Your task to perform on an android device: Clear the cart on amazon. Add usb-a to the cart on amazon, then select checkout. Image 0: 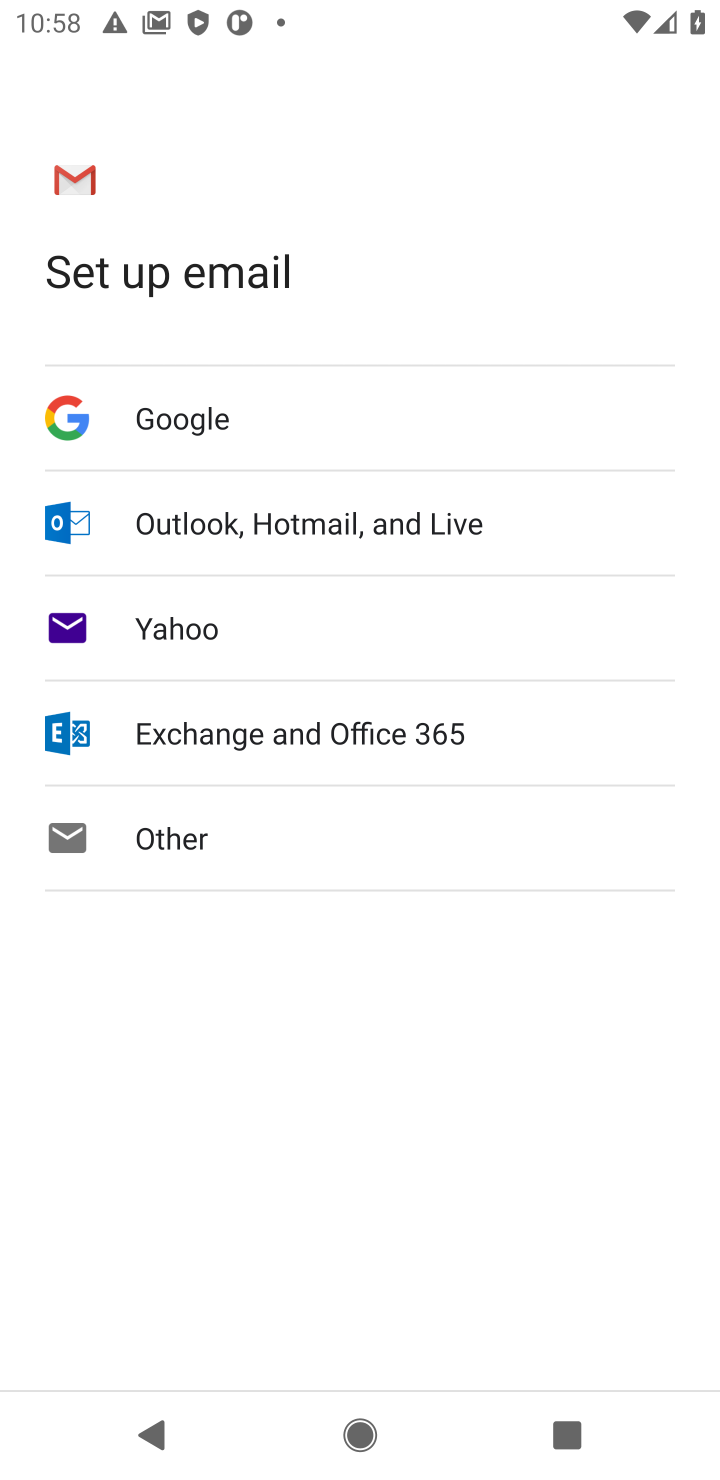
Step 0: press home button
Your task to perform on an android device: Clear the cart on amazon. Add usb-a to the cart on amazon, then select checkout. Image 1: 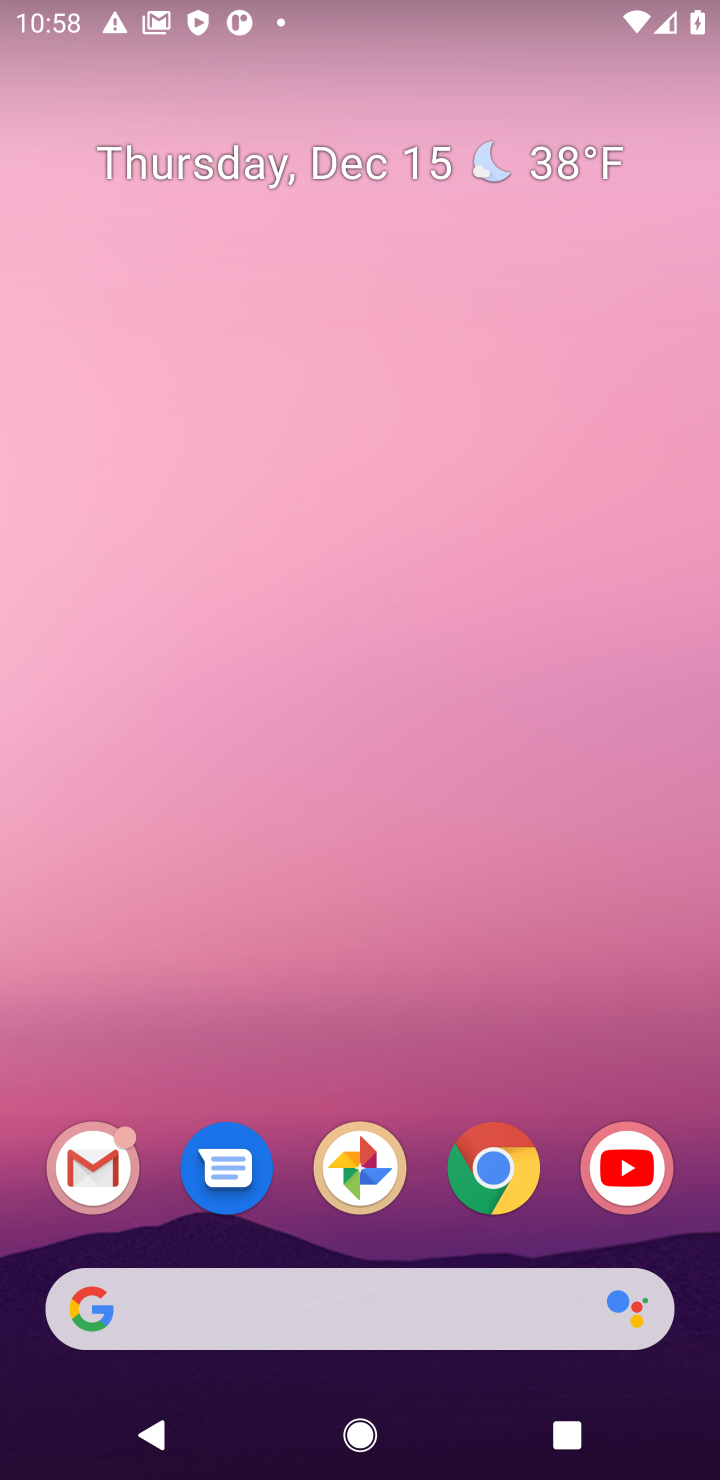
Step 1: click (500, 1171)
Your task to perform on an android device: Clear the cart on amazon. Add usb-a to the cart on amazon, then select checkout. Image 2: 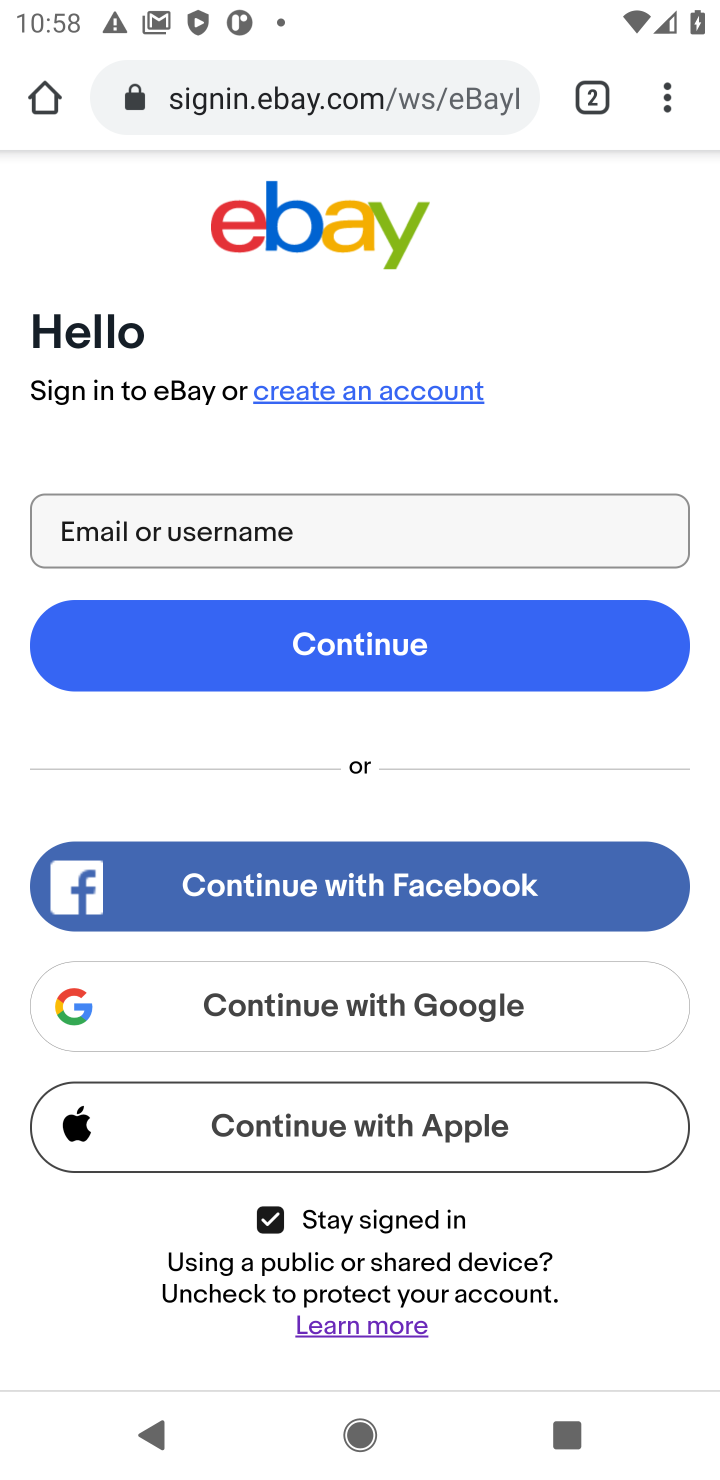
Step 2: click (394, 101)
Your task to perform on an android device: Clear the cart on amazon. Add usb-a to the cart on amazon, then select checkout. Image 3: 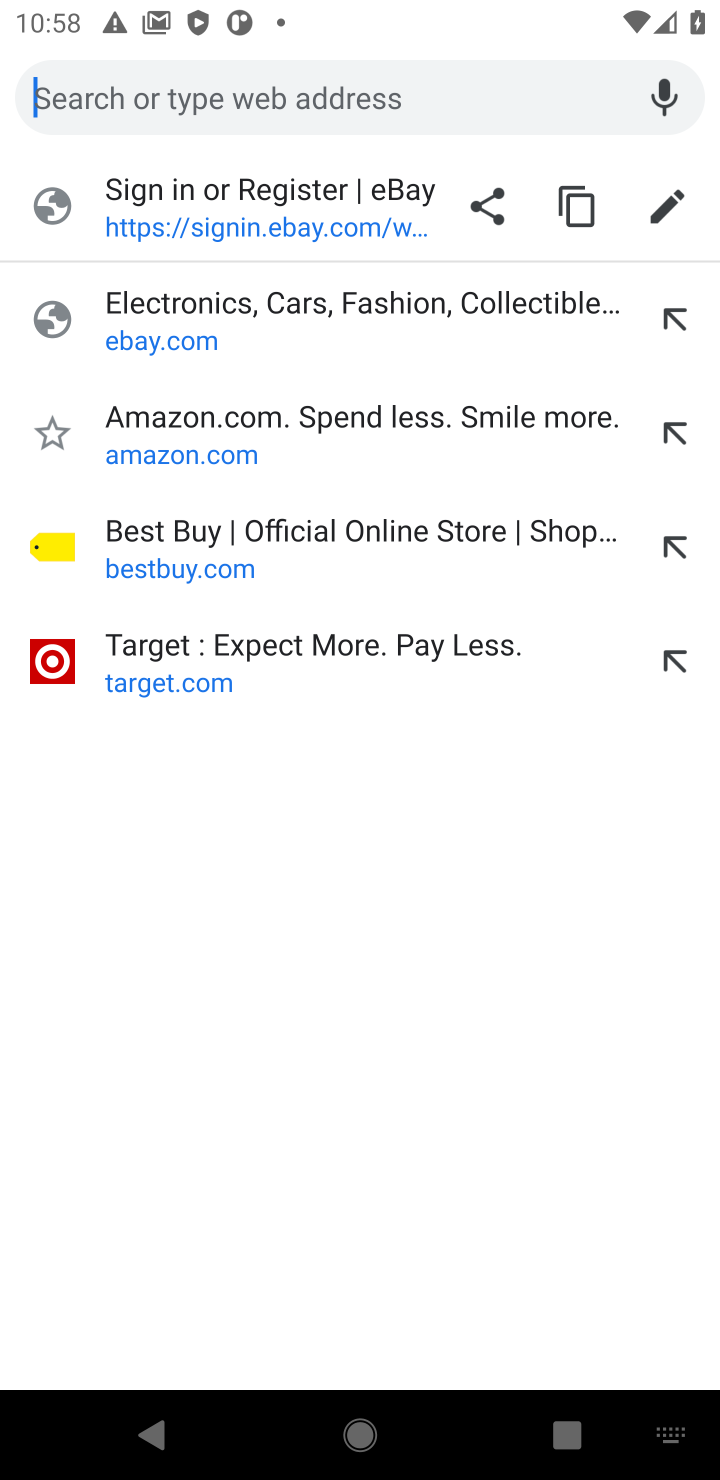
Step 3: click (277, 423)
Your task to perform on an android device: Clear the cart on amazon. Add usb-a to the cart on amazon, then select checkout. Image 4: 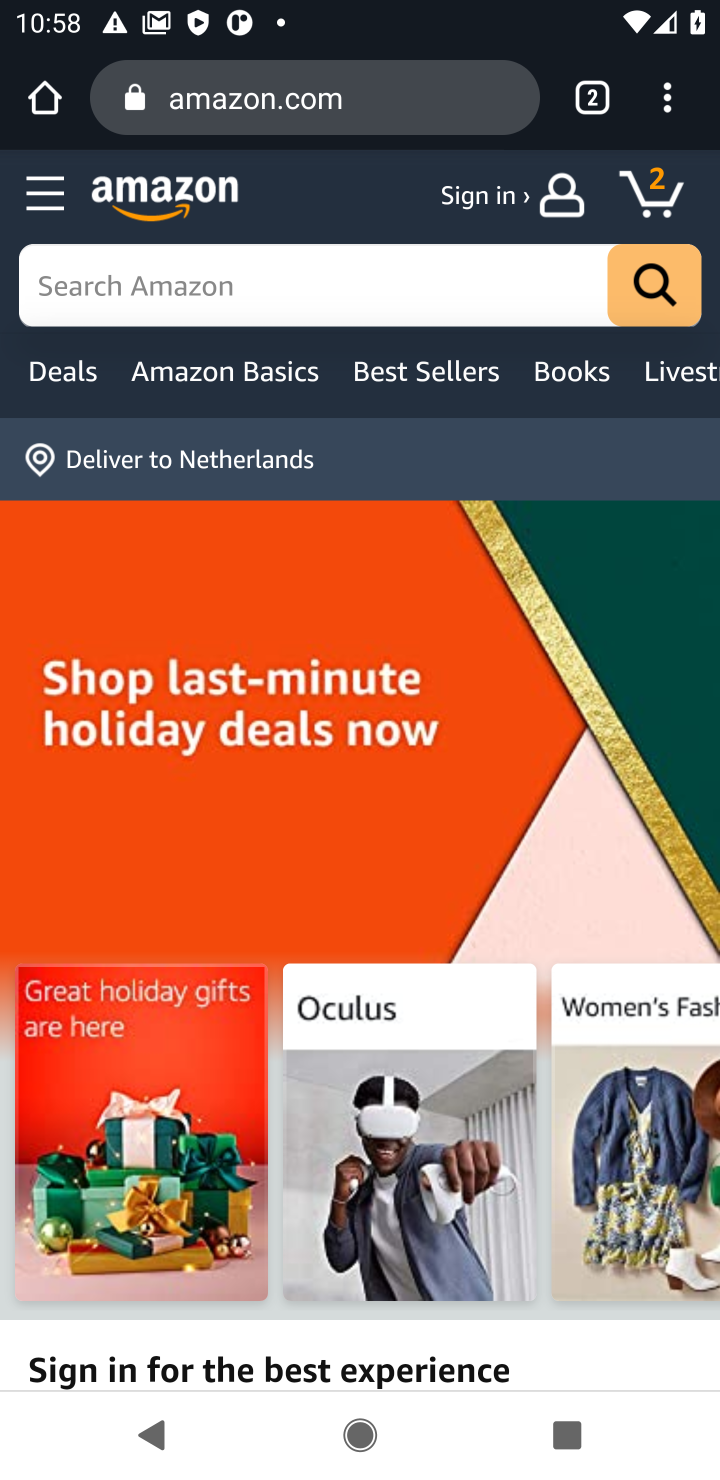
Step 4: click (645, 200)
Your task to perform on an android device: Clear the cart on amazon. Add usb-a to the cart on amazon, then select checkout. Image 5: 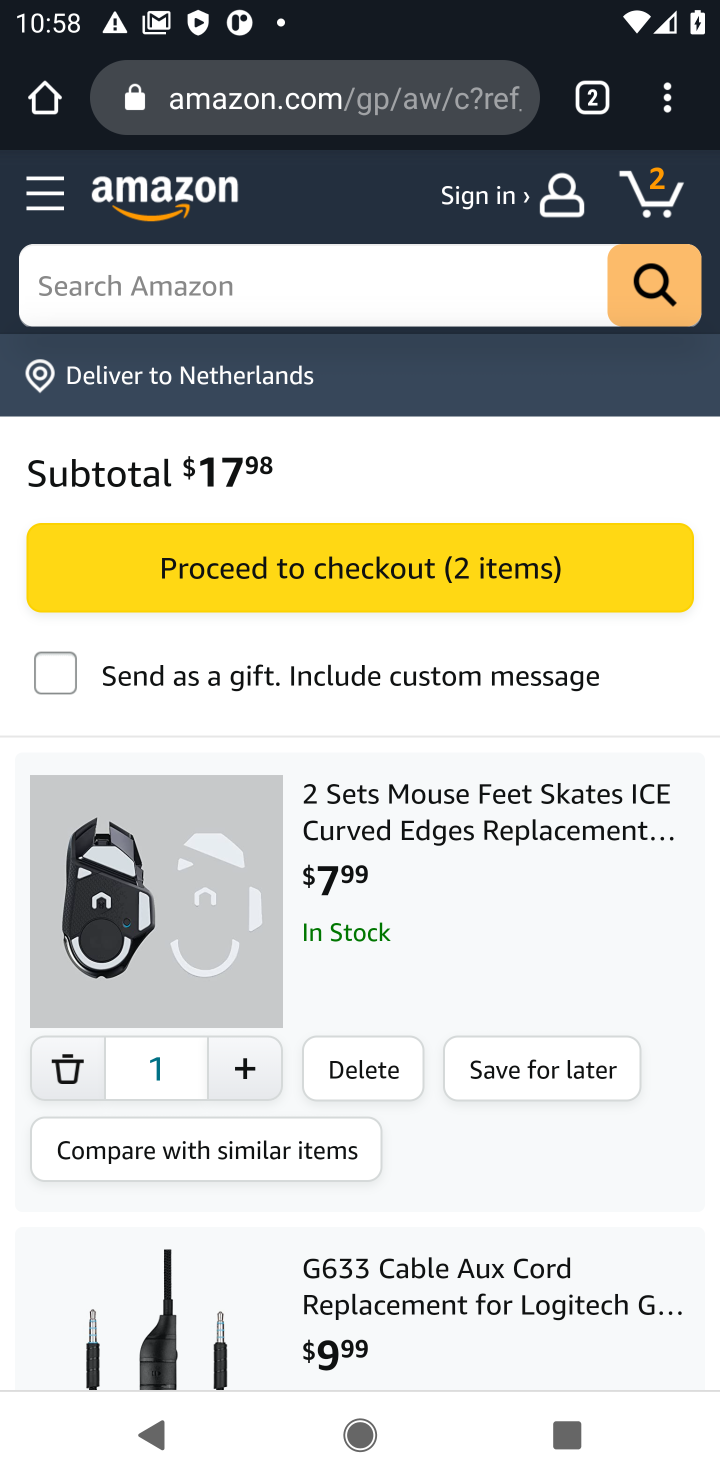
Step 5: click (60, 1067)
Your task to perform on an android device: Clear the cart on amazon. Add usb-a to the cart on amazon, then select checkout. Image 6: 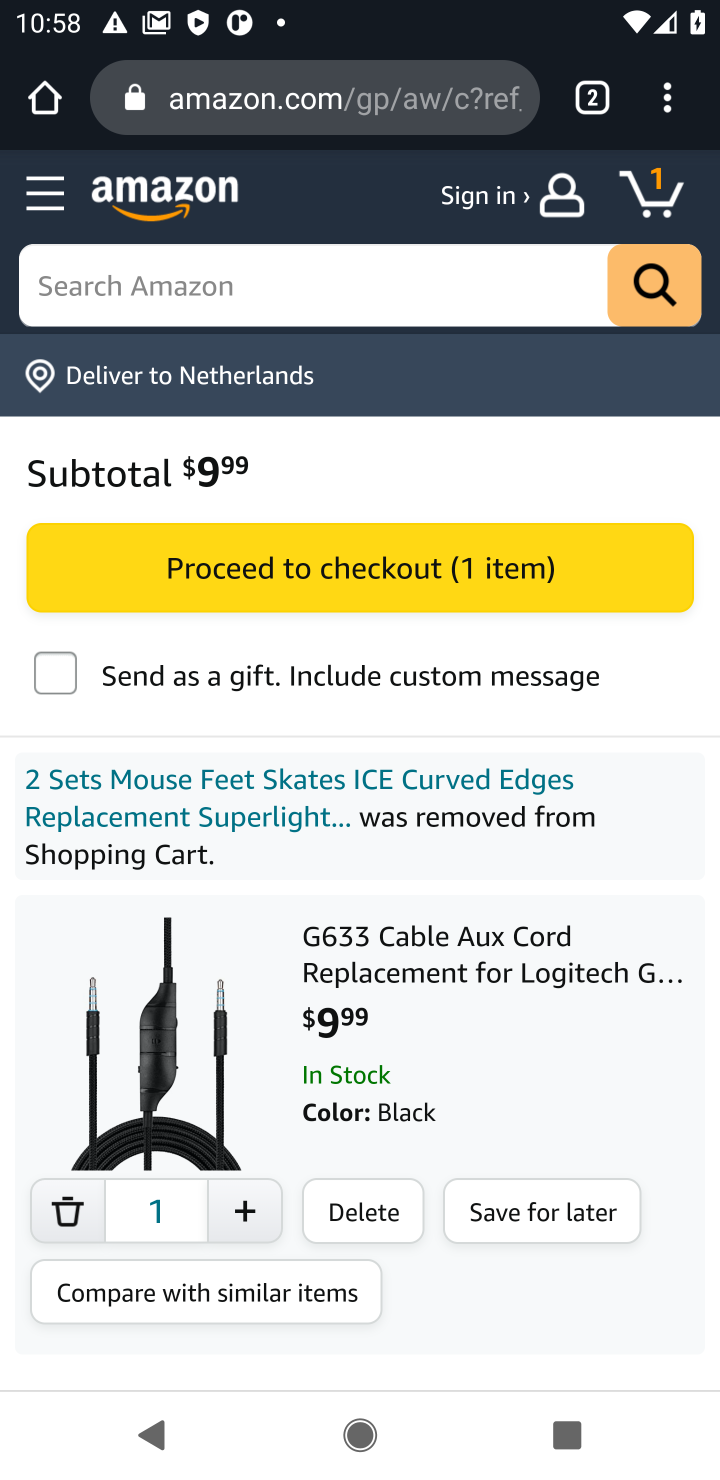
Step 6: click (56, 1209)
Your task to perform on an android device: Clear the cart on amazon. Add usb-a to the cart on amazon, then select checkout. Image 7: 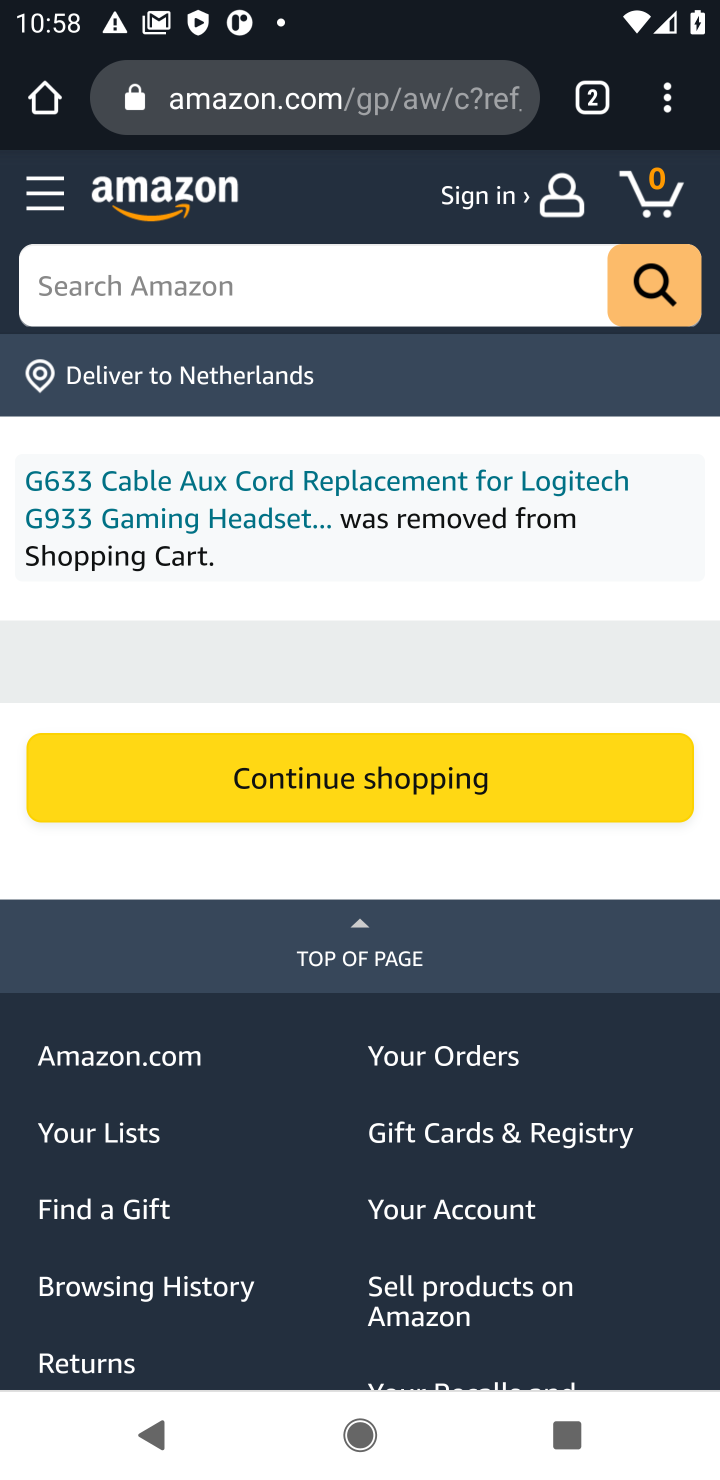
Step 7: click (459, 279)
Your task to perform on an android device: Clear the cart on amazon. Add usb-a to the cart on amazon, then select checkout. Image 8: 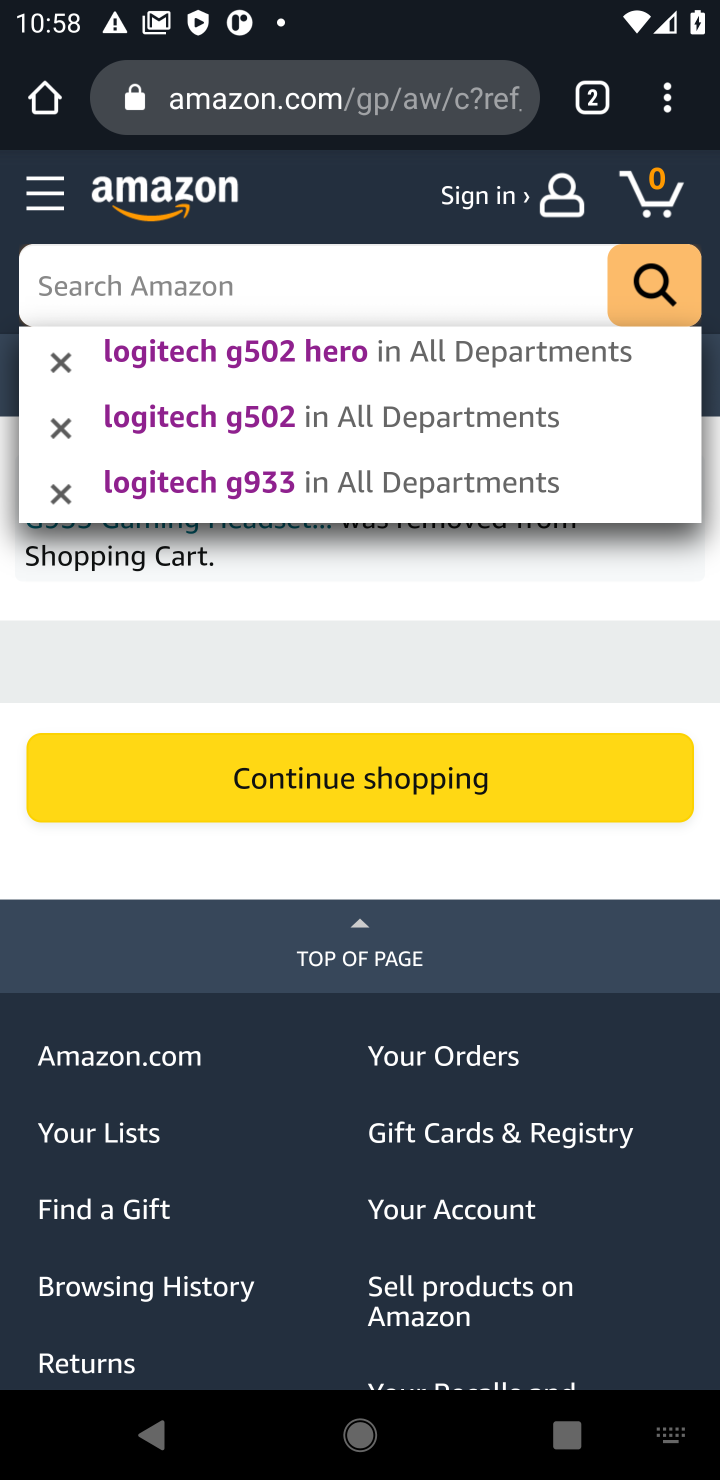
Step 8: type "usb-a"
Your task to perform on an android device: Clear the cart on amazon. Add usb-a to the cart on amazon, then select checkout. Image 9: 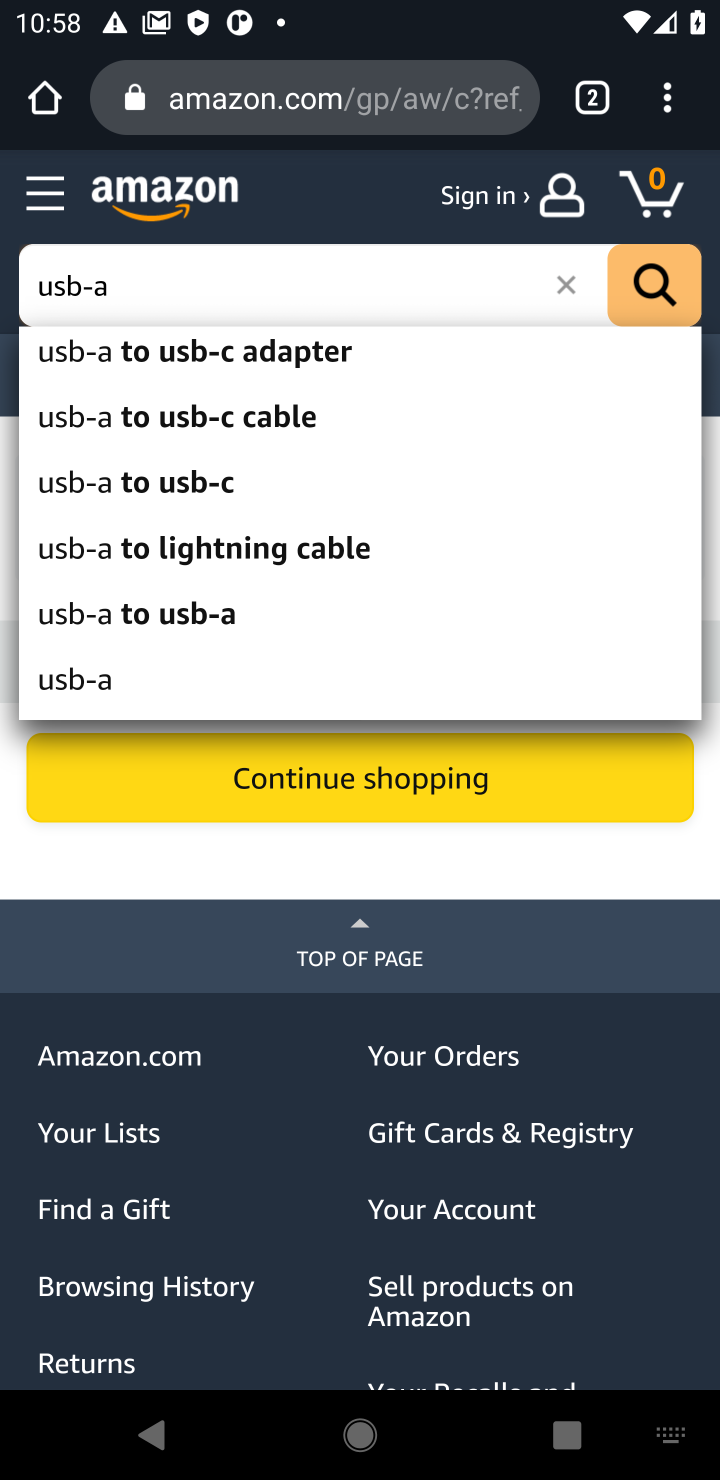
Step 9: click (161, 361)
Your task to perform on an android device: Clear the cart on amazon. Add usb-a to the cart on amazon, then select checkout. Image 10: 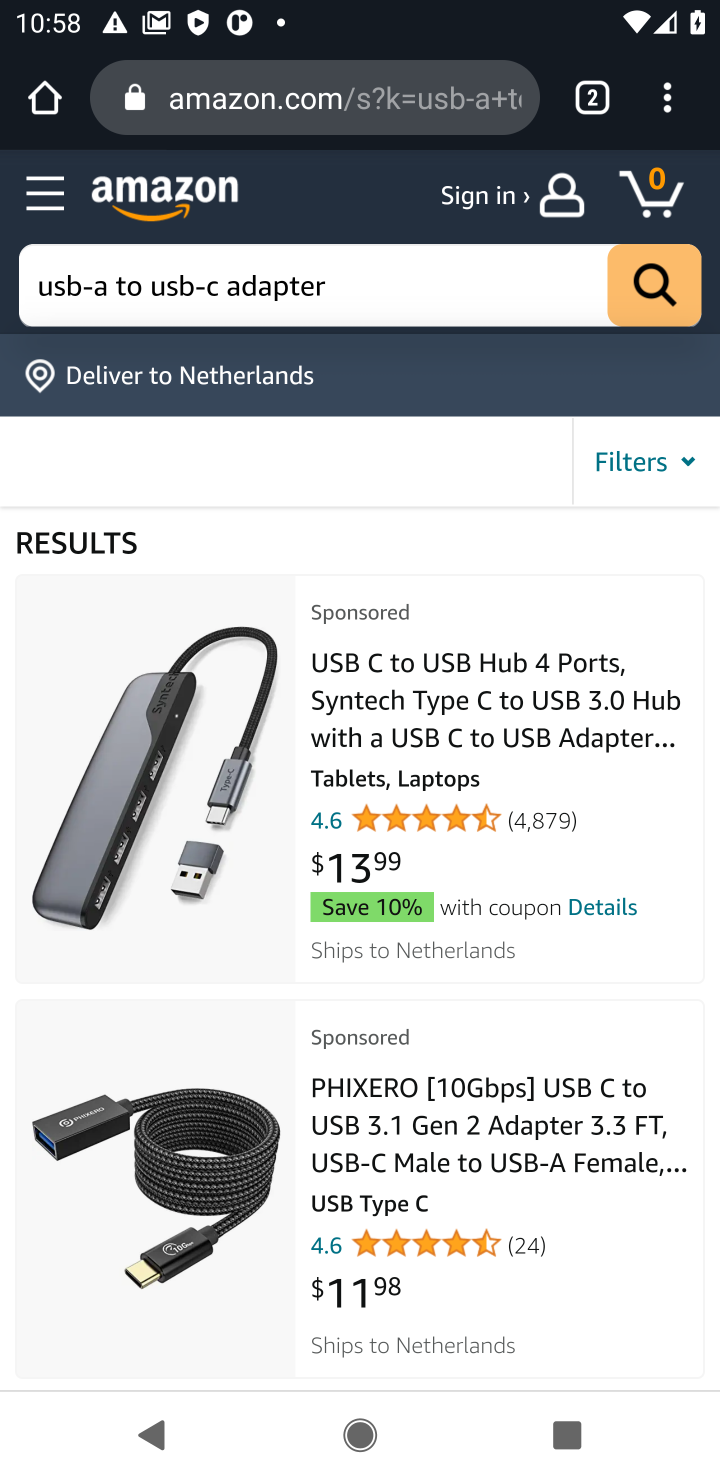
Step 10: click (515, 724)
Your task to perform on an android device: Clear the cart on amazon. Add usb-a to the cart on amazon, then select checkout. Image 11: 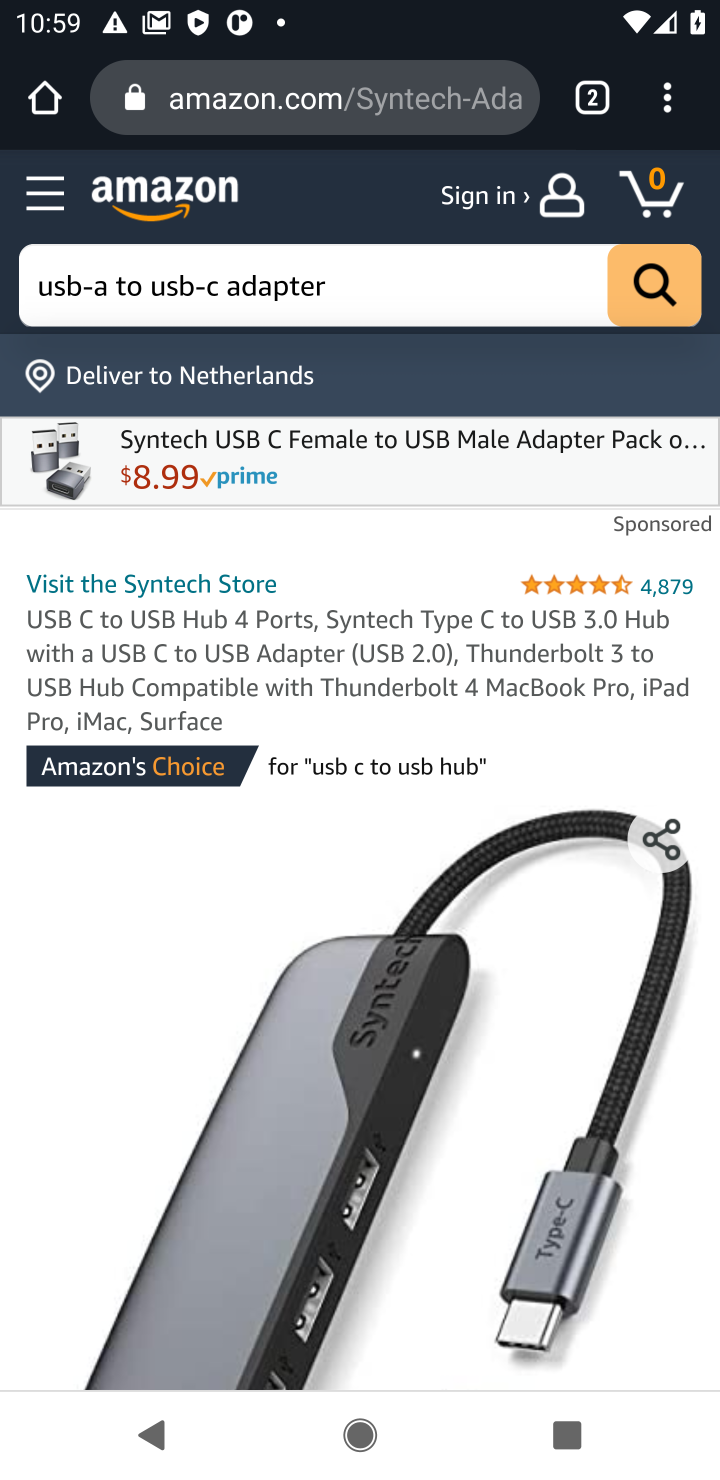
Step 11: drag from (396, 1164) to (471, 287)
Your task to perform on an android device: Clear the cart on amazon. Add usb-a to the cart on amazon, then select checkout. Image 12: 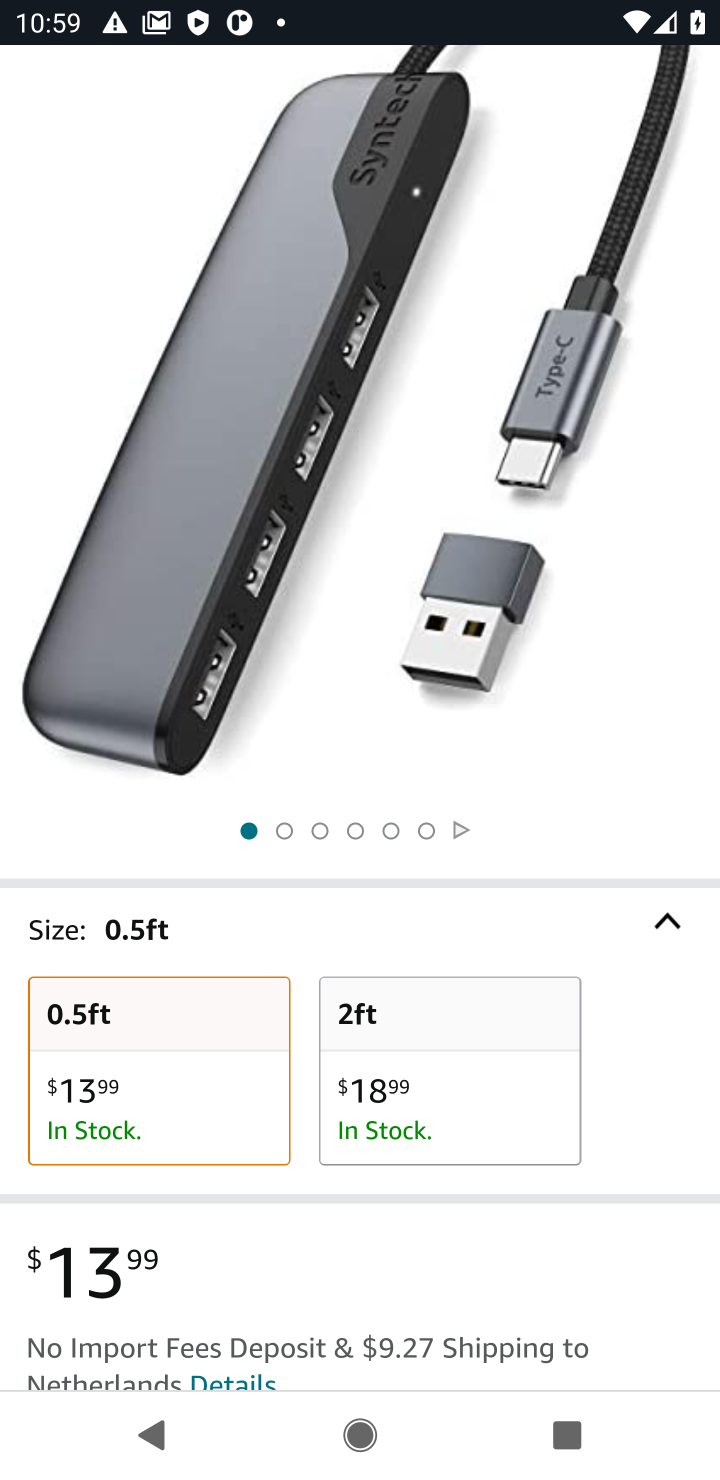
Step 12: drag from (569, 1251) to (597, 287)
Your task to perform on an android device: Clear the cart on amazon. Add usb-a to the cart on amazon, then select checkout. Image 13: 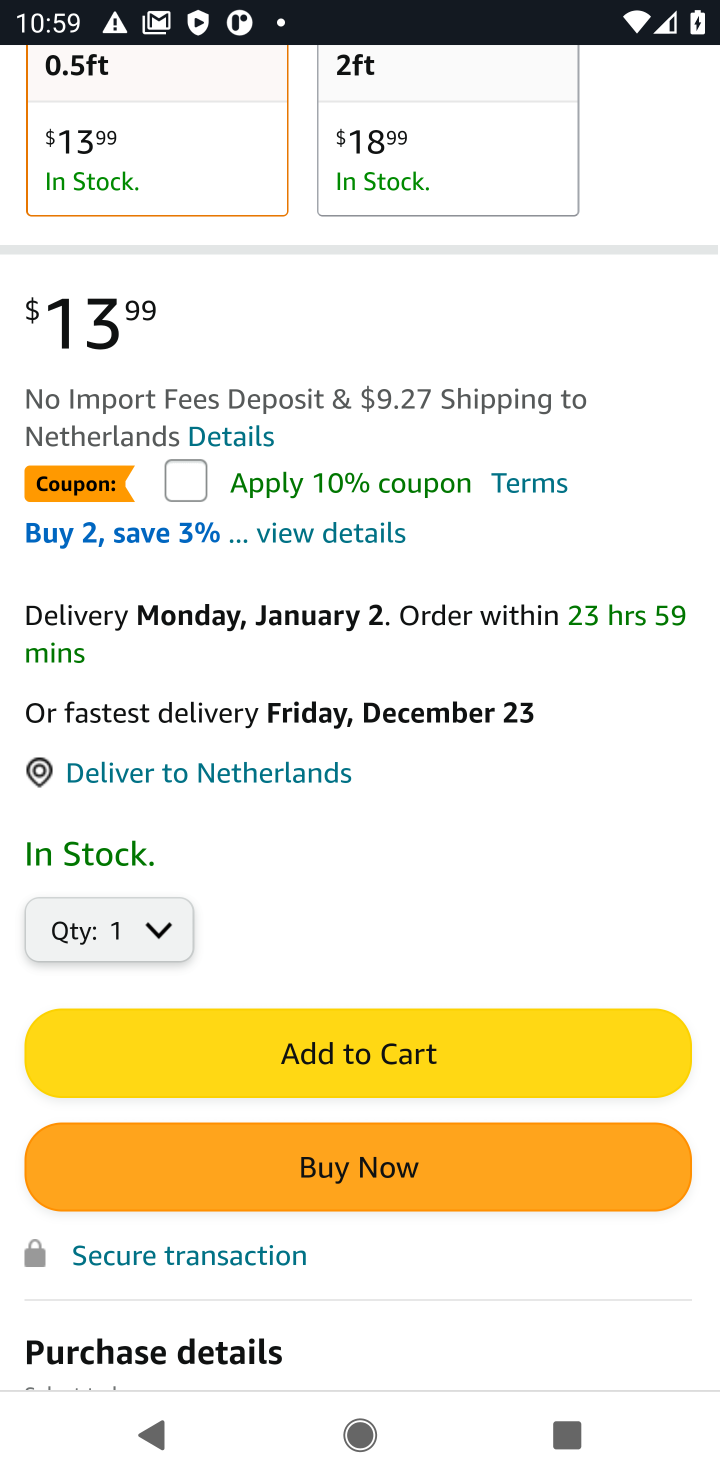
Step 13: click (414, 1057)
Your task to perform on an android device: Clear the cart on amazon. Add usb-a to the cart on amazon, then select checkout. Image 14: 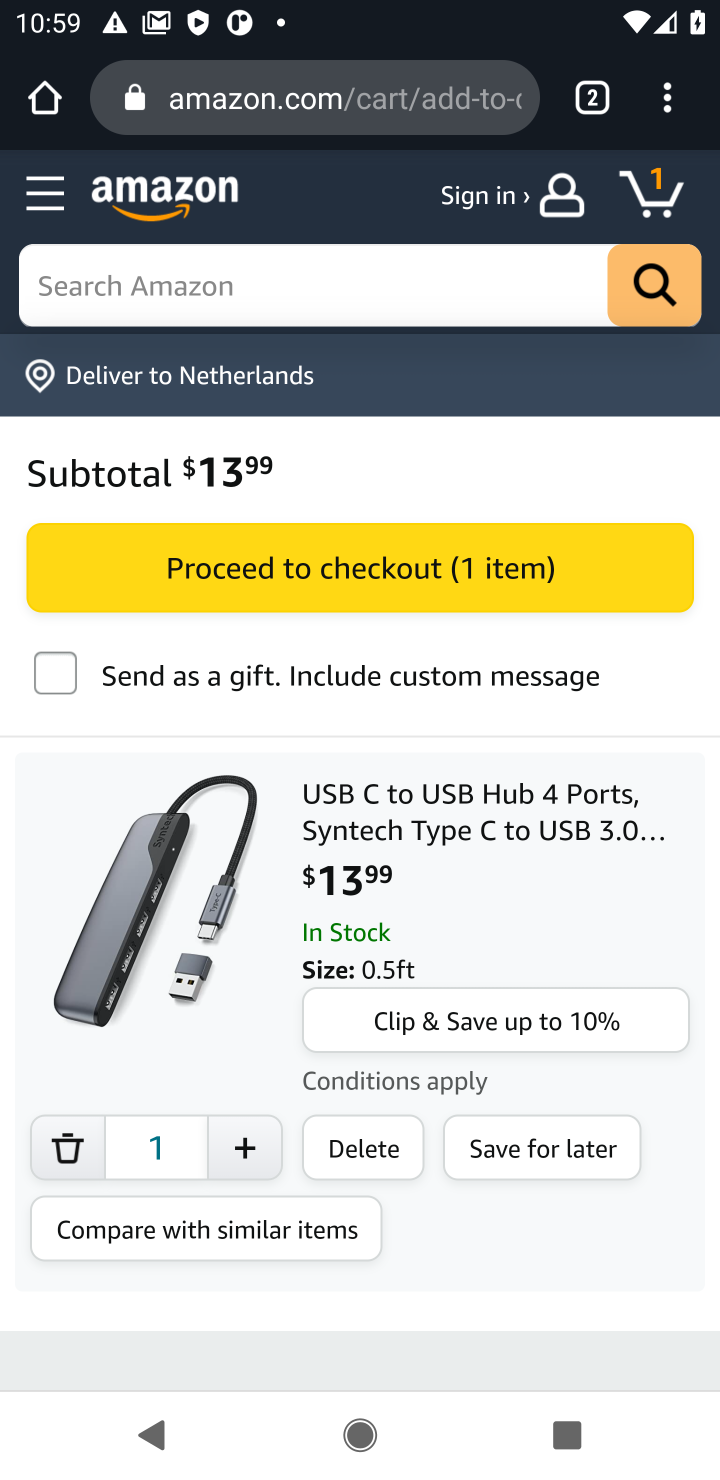
Step 14: click (372, 558)
Your task to perform on an android device: Clear the cart on amazon. Add usb-a to the cart on amazon, then select checkout. Image 15: 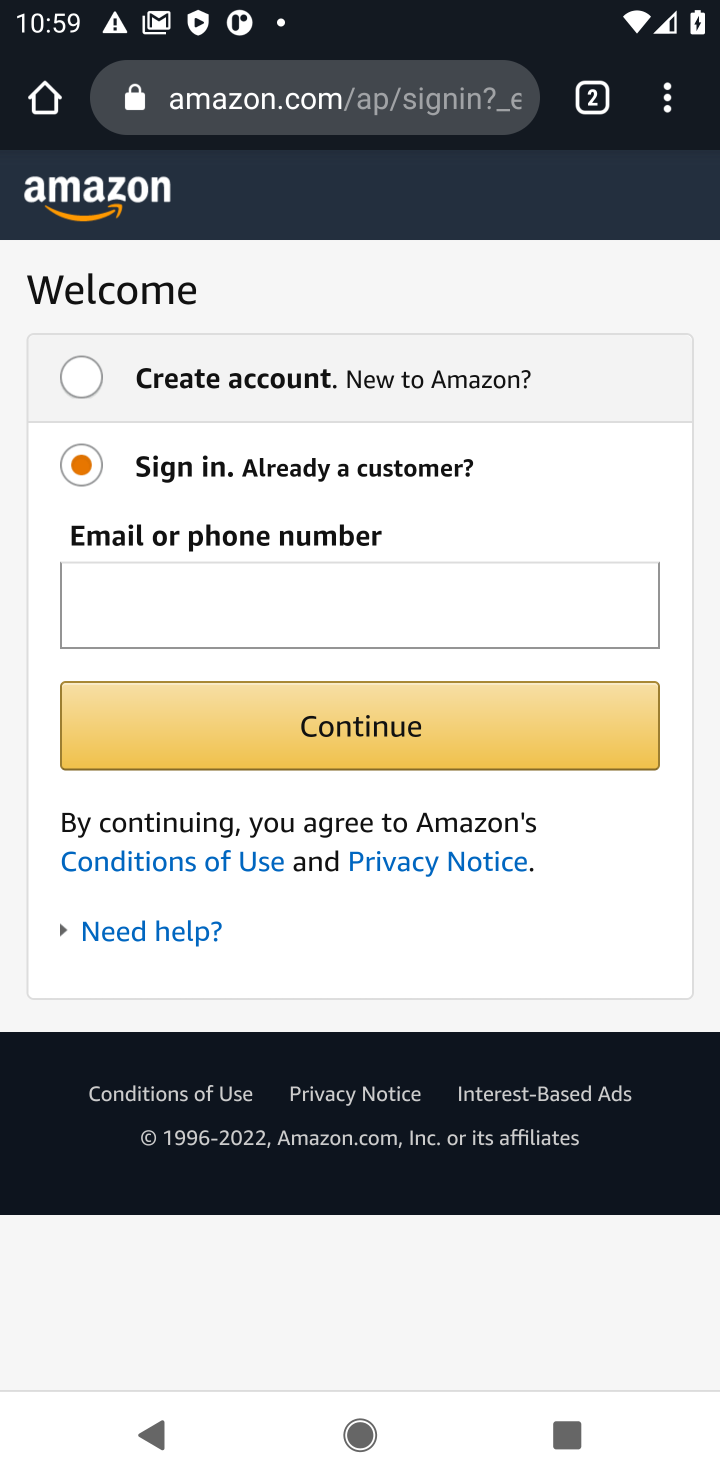
Step 15: task complete